Your task to perform on an android device: Open internet settings Image 0: 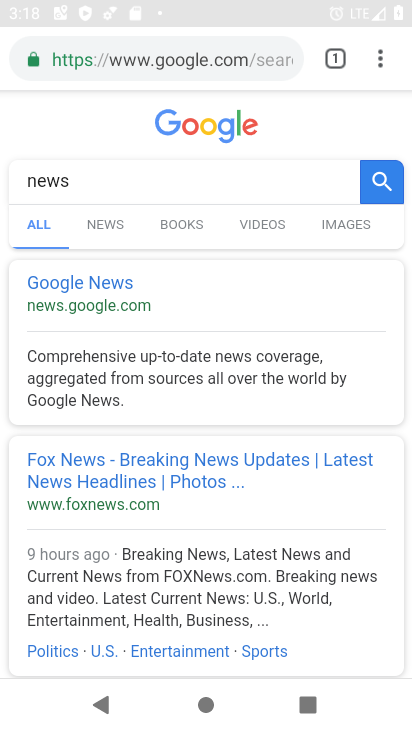
Step 0: press home button
Your task to perform on an android device: Open internet settings Image 1: 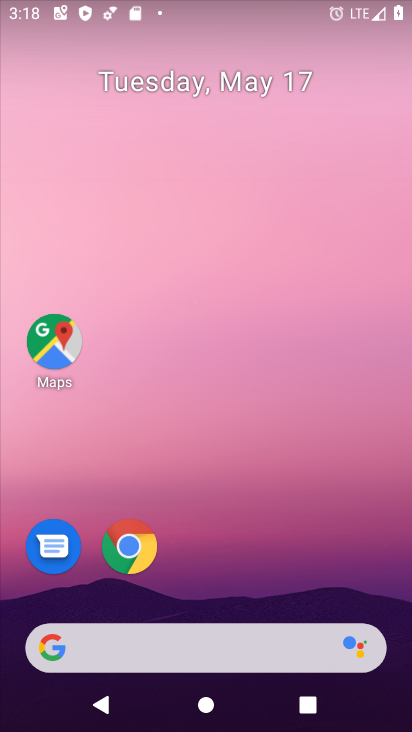
Step 1: drag from (291, 521) to (286, 0)
Your task to perform on an android device: Open internet settings Image 2: 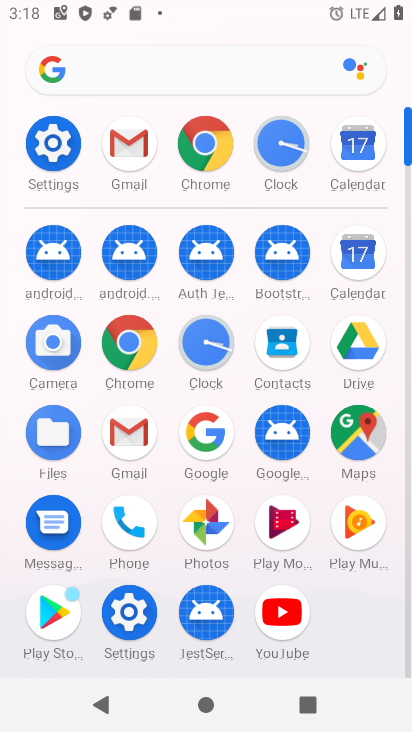
Step 2: click (46, 139)
Your task to perform on an android device: Open internet settings Image 3: 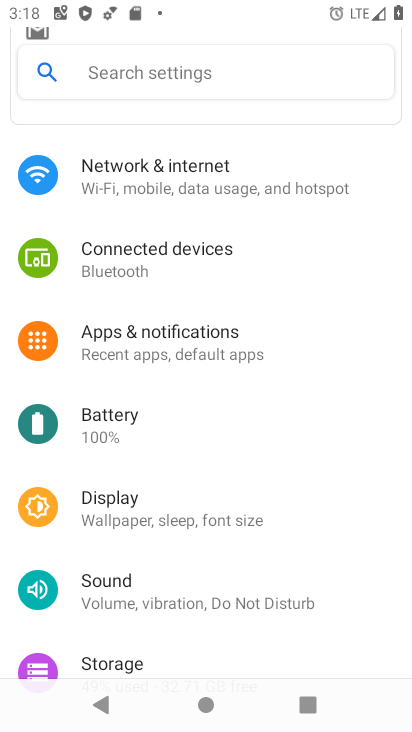
Step 3: click (55, 182)
Your task to perform on an android device: Open internet settings Image 4: 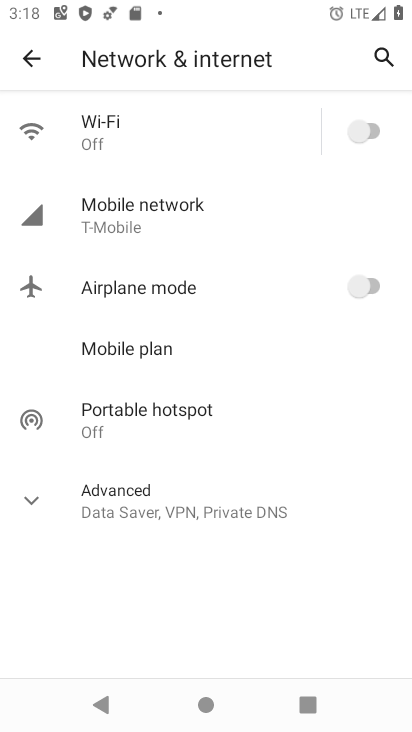
Step 4: task complete